Your task to perform on an android device: toggle javascript in the chrome app Image 0: 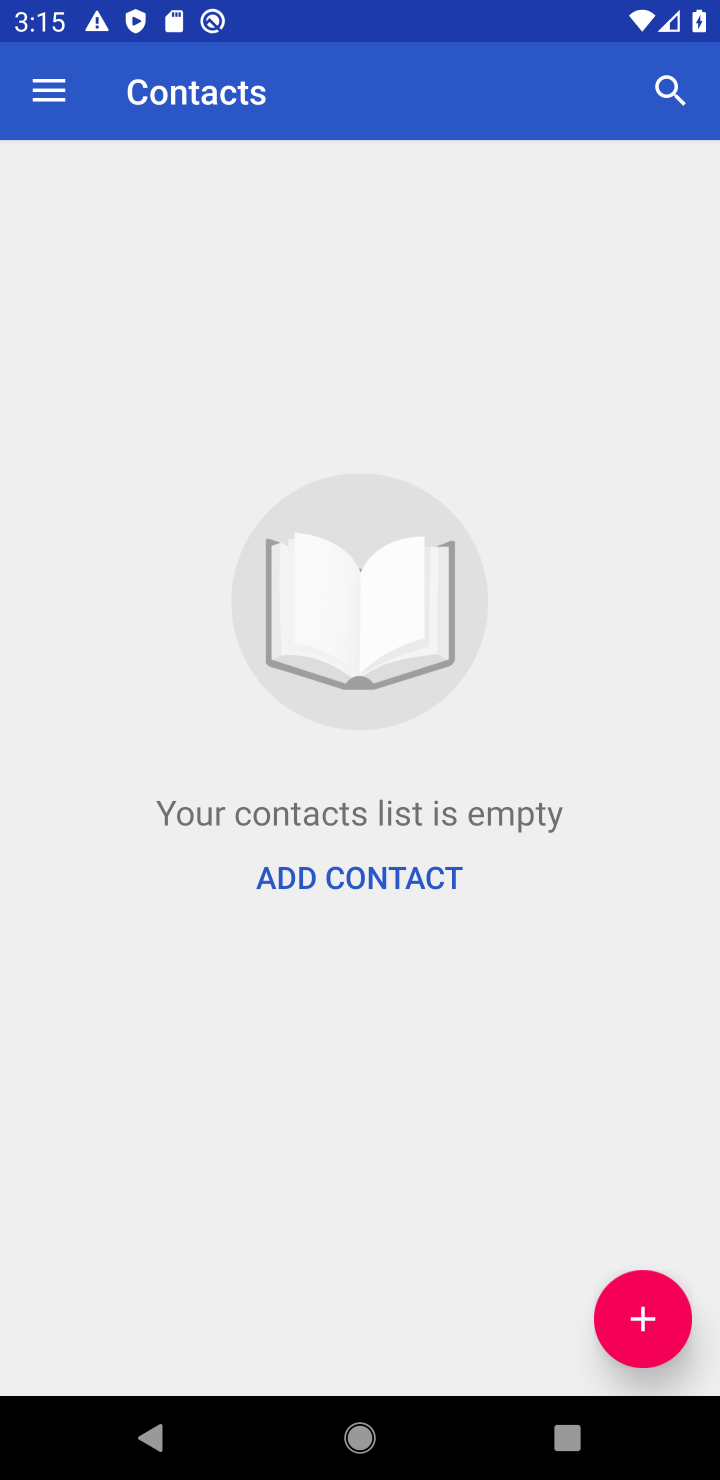
Step 0: press home button
Your task to perform on an android device: toggle javascript in the chrome app Image 1: 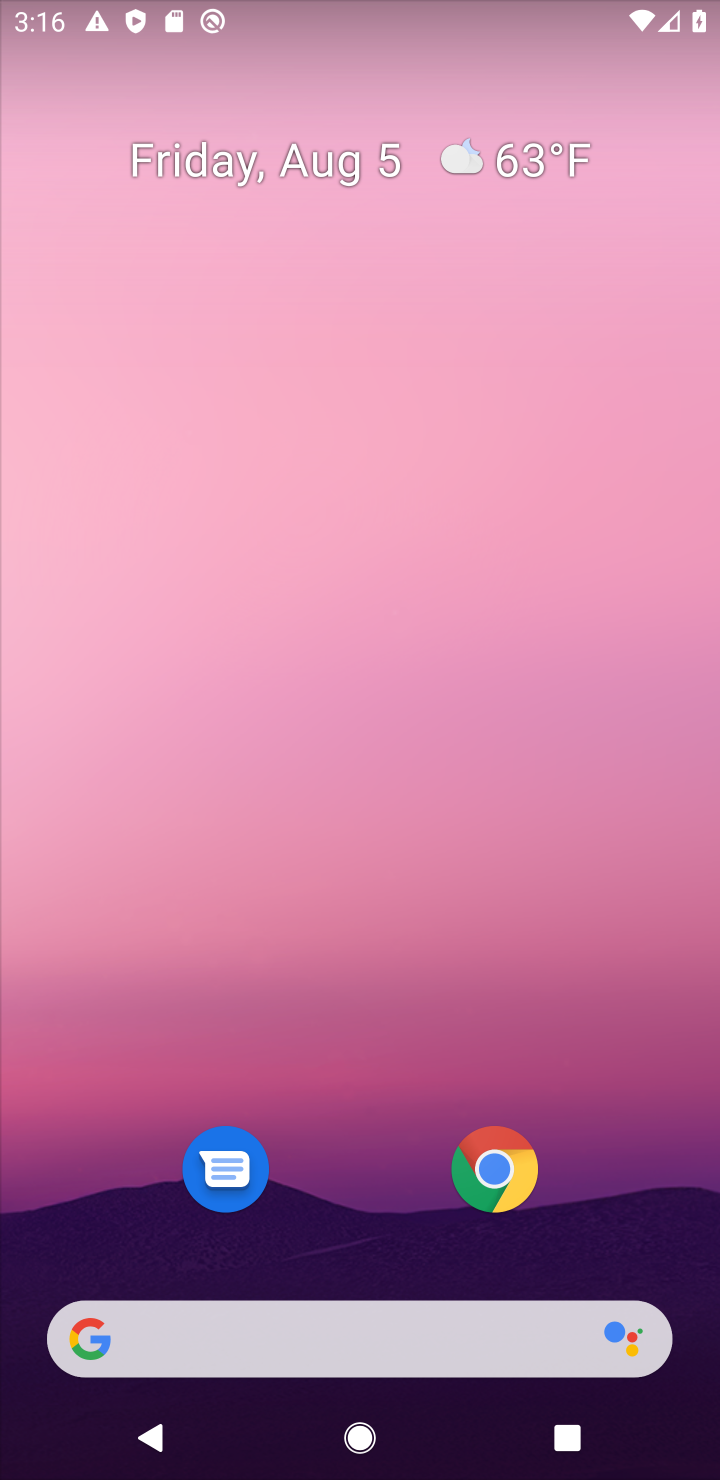
Step 1: click (500, 1169)
Your task to perform on an android device: toggle javascript in the chrome app Image 2: 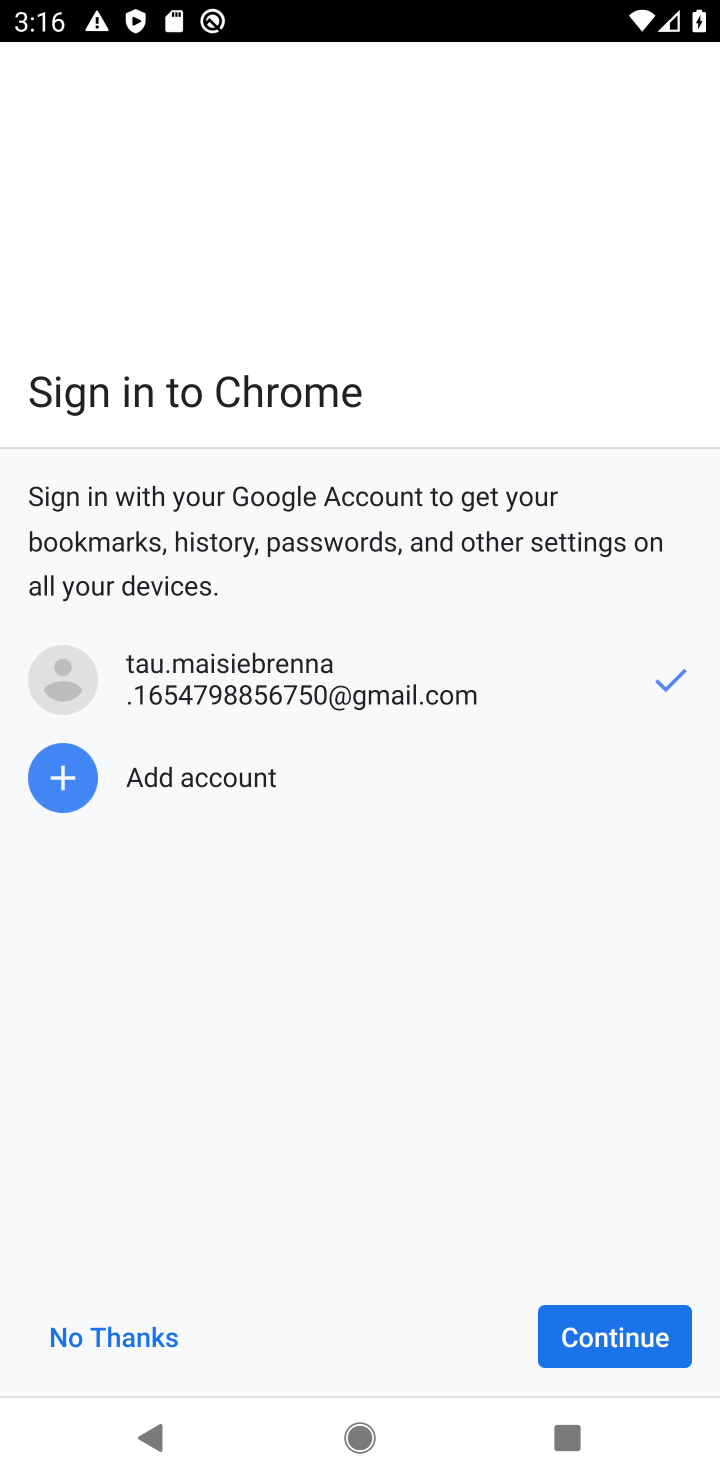
Step 2: click (511, 1167)
Your task to perform on an android device: toggle javascript in the chrome app Image 3: 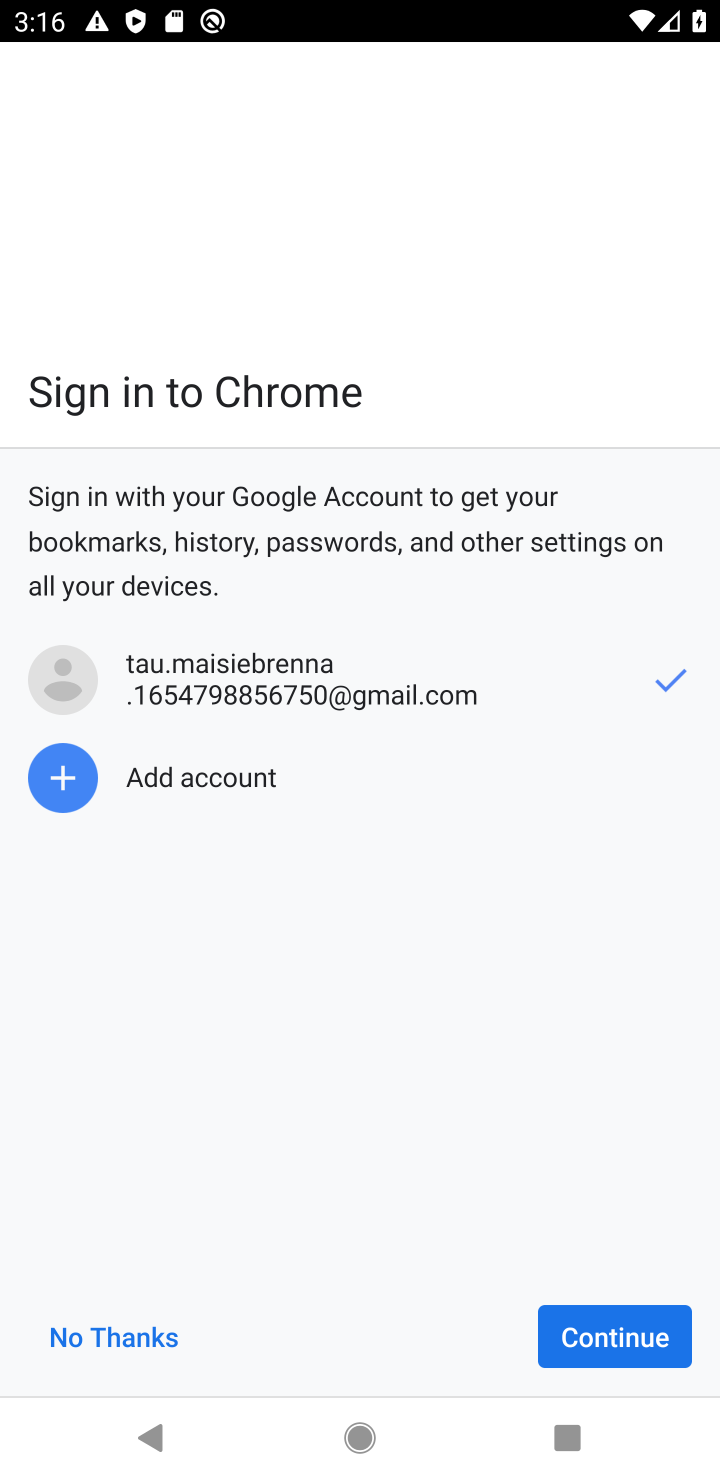
Step 3: click (572, 1329)
Your task to perform on an android device: toggle javascript in the chrome app Image 4: 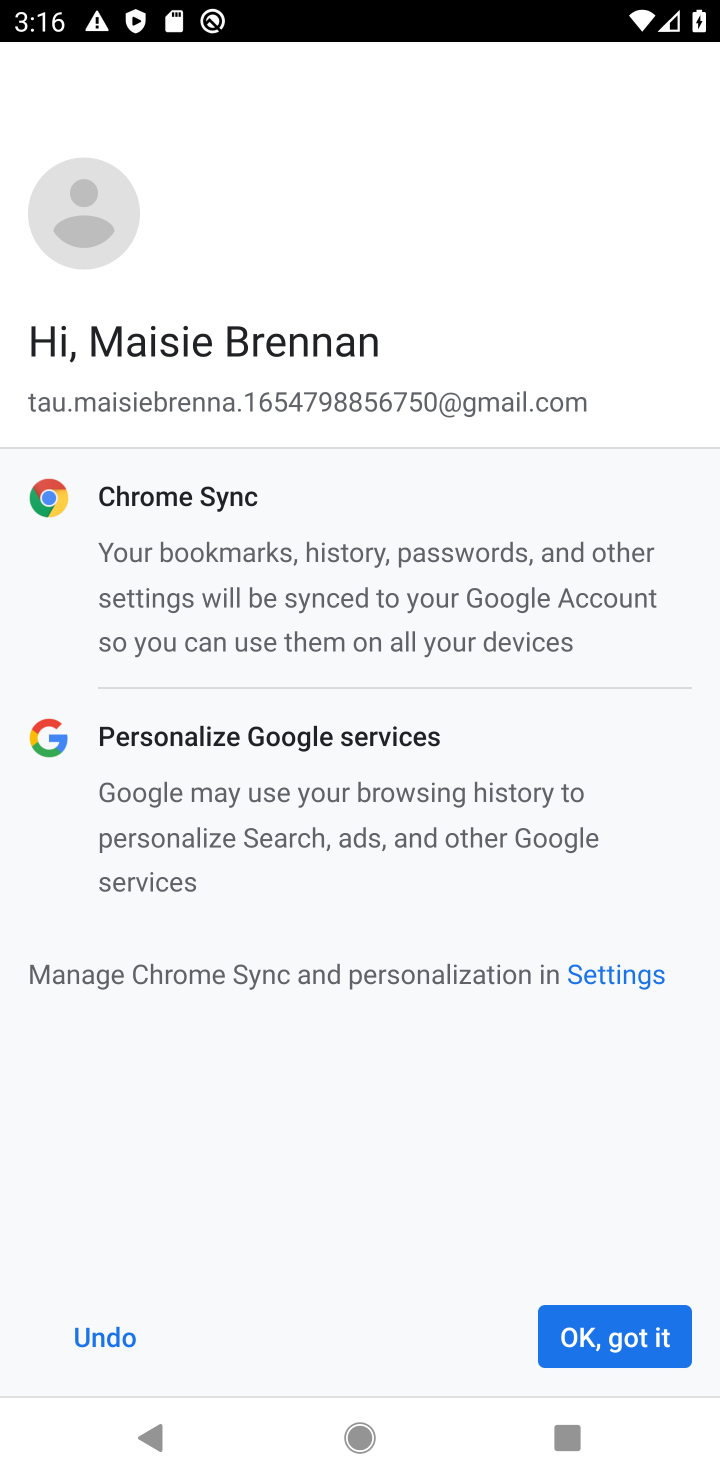
Step 4: click (570, 1329)
Your task to perform on an android device: toggle javascript in the chrome app Image 5: 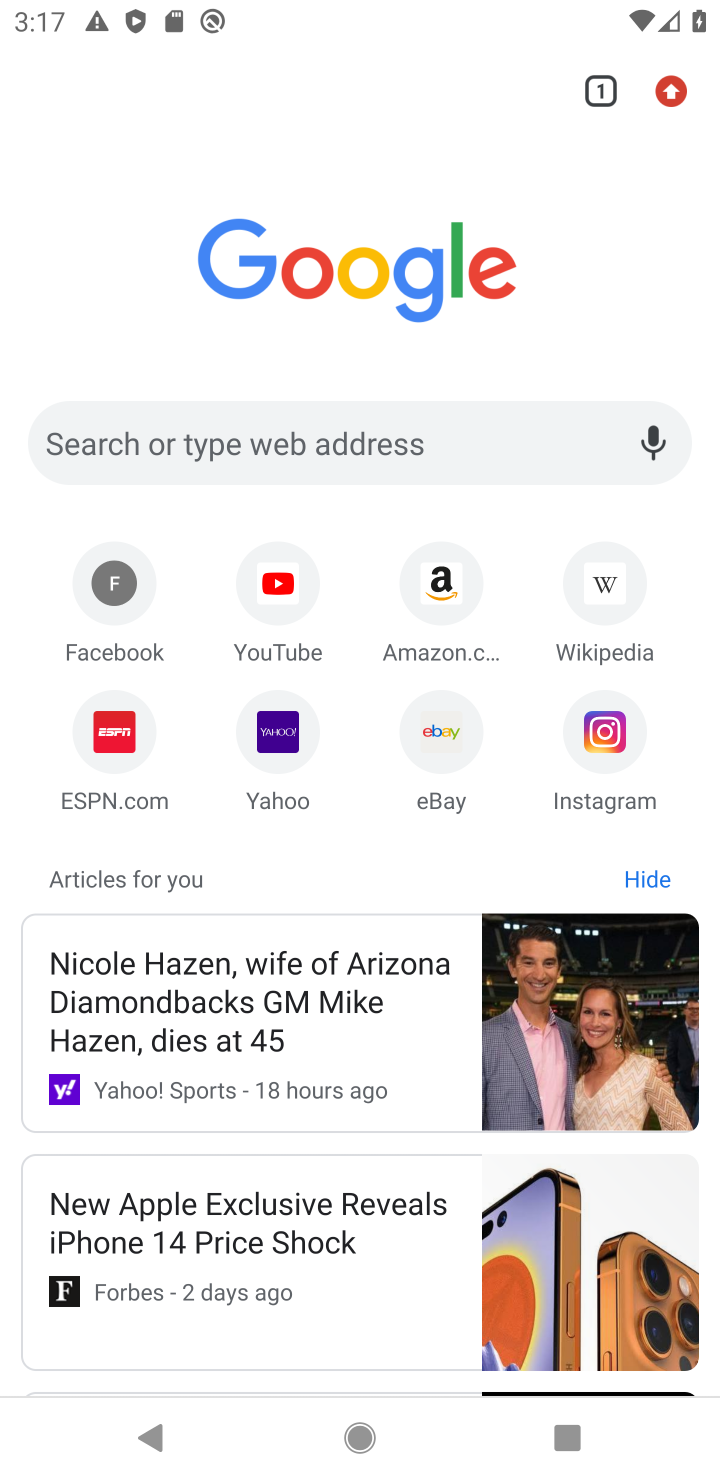
Step 5: click (675, 79)
Your task to perform on an android device: toggle javascript in the chrome app Image 6: 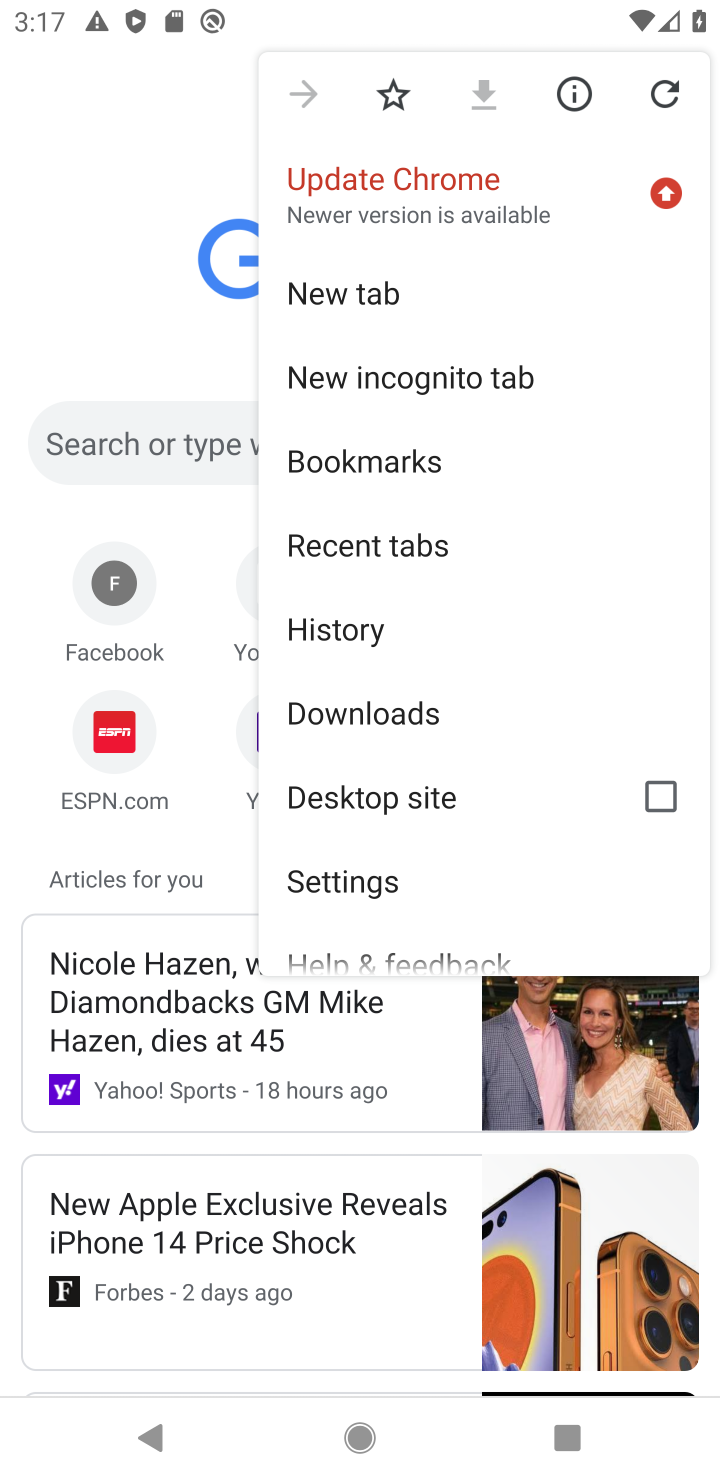
Step 6: click (350, 881)
Your task to perform on an android device: toggle javascript in the chrome app Image 7: 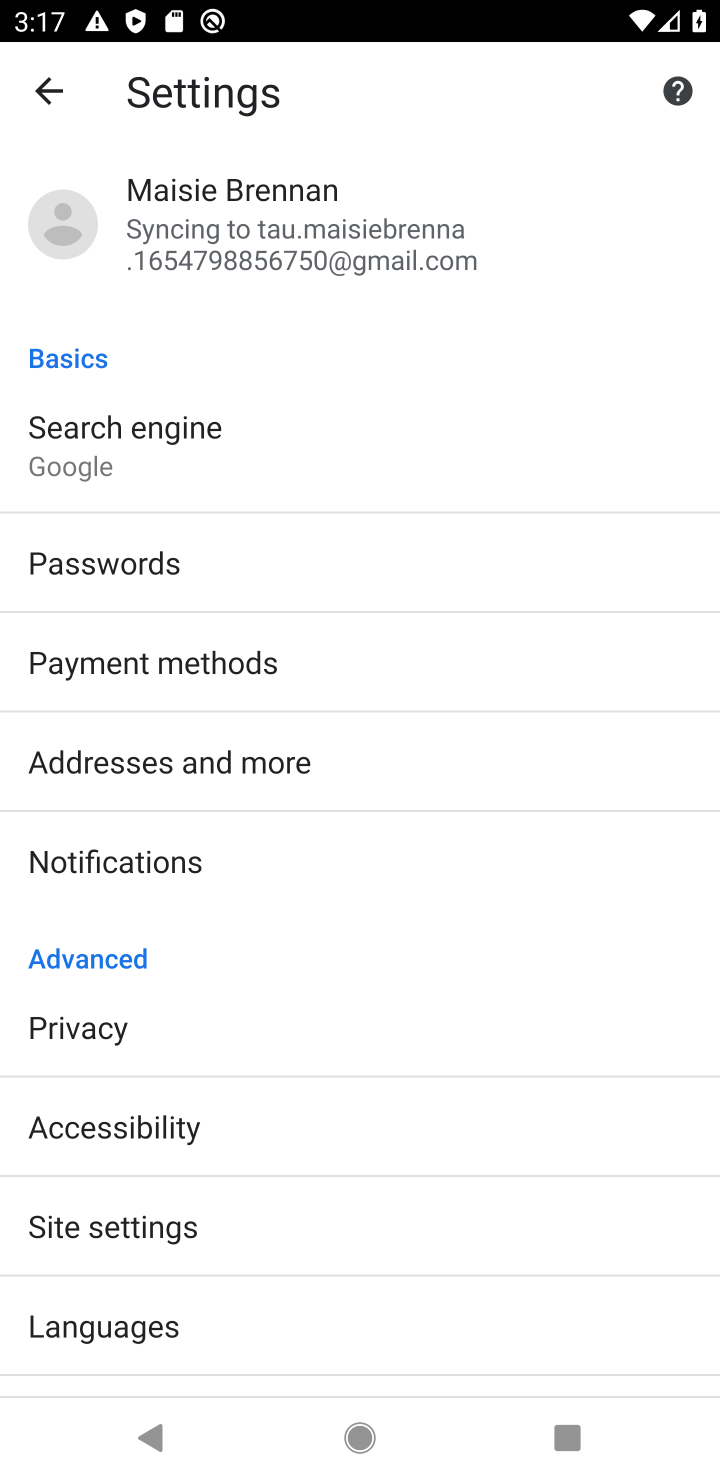
Step 7: click (142, 1227)
Your task to perform on an android device: toggle javascript in the chrome app Image 8: 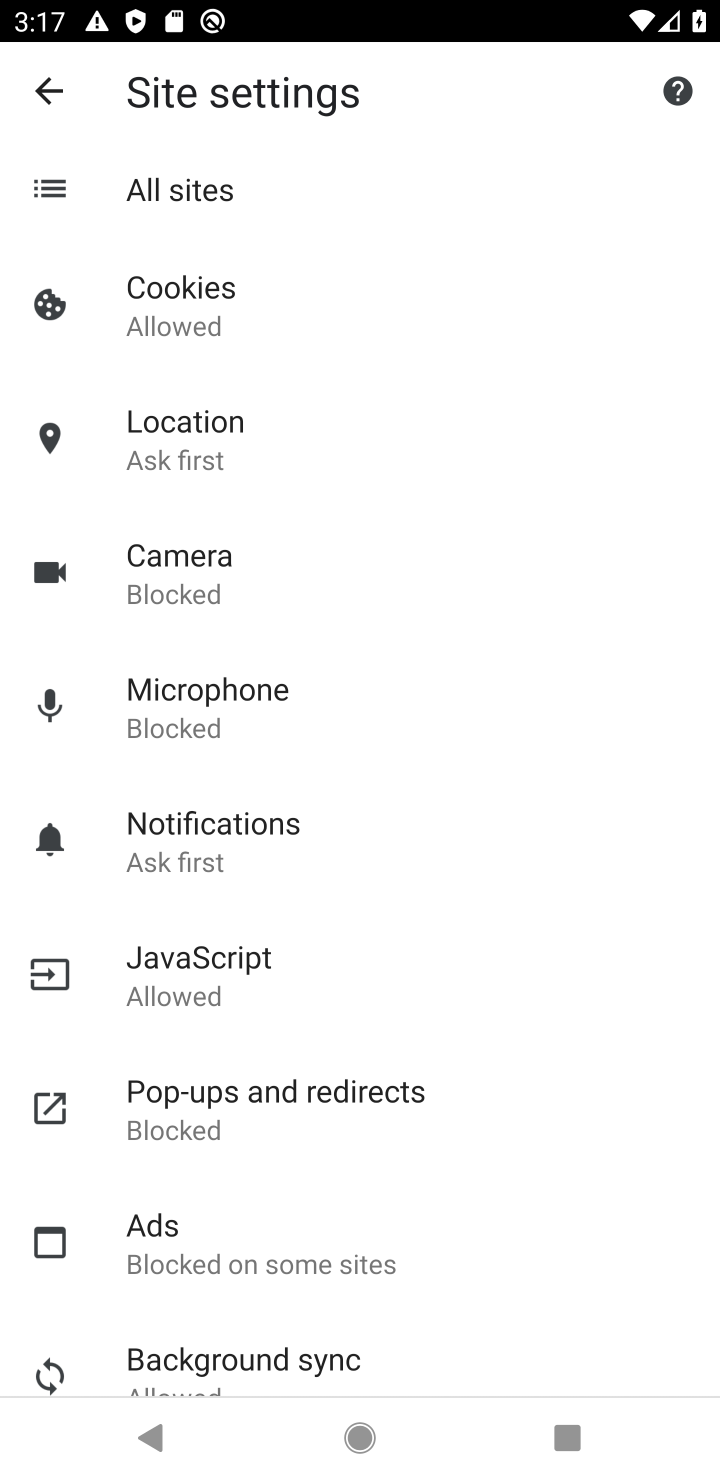
Step 8: click (202, 954)
Your task to perform on an android device: toggle javascript in the chrome app Image 9: 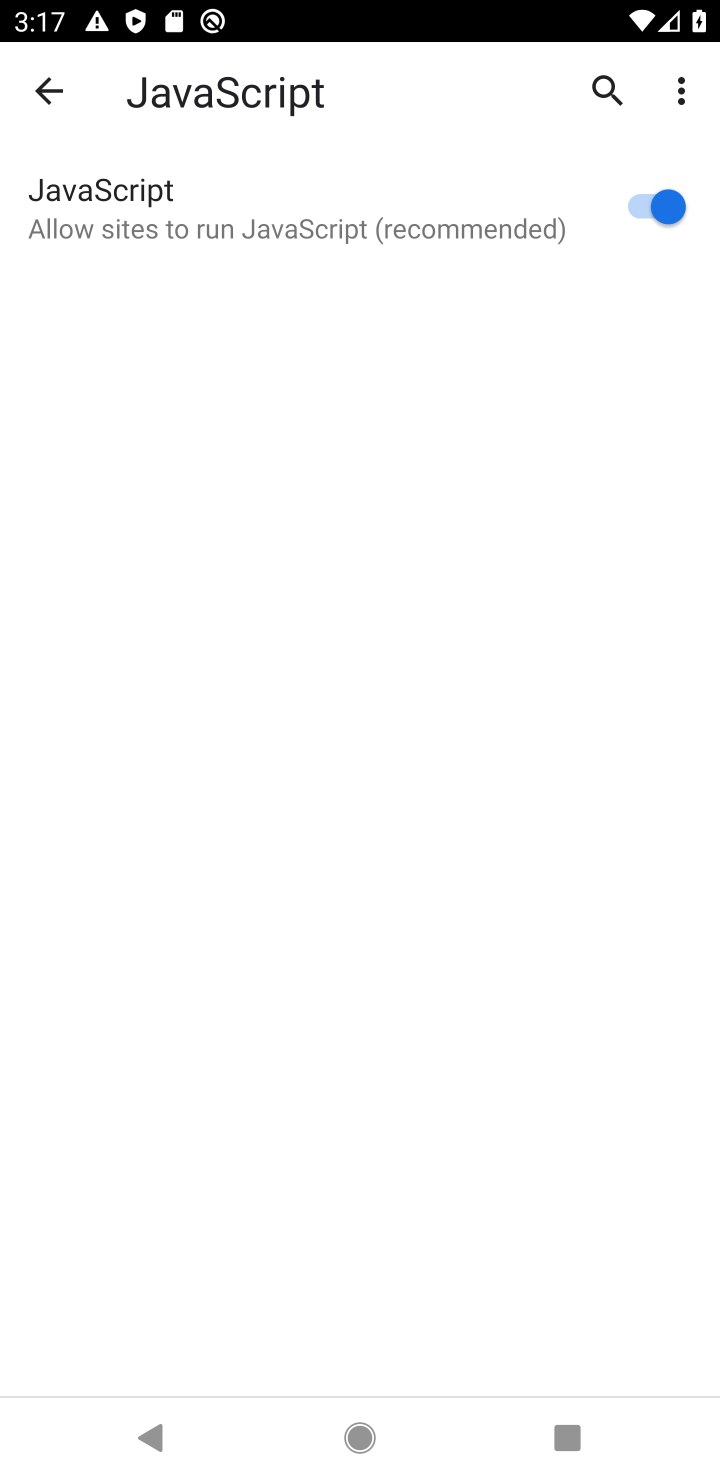
Step 9: click (644, 212)
Your task to perform on an android device: toggle javascript in the chrome app Image 10: 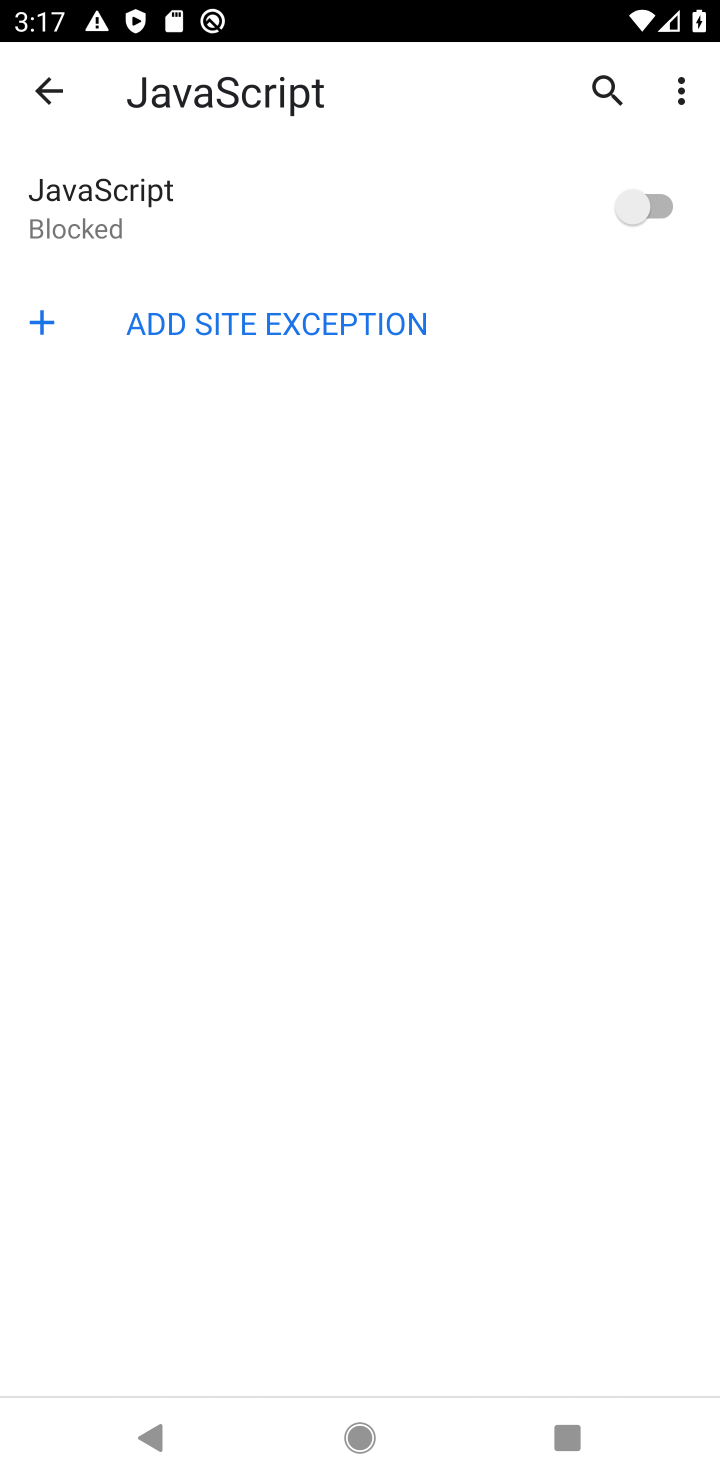
Step 10: task complete